Your task to perform on an android device: Open Reddit.com Image 0: 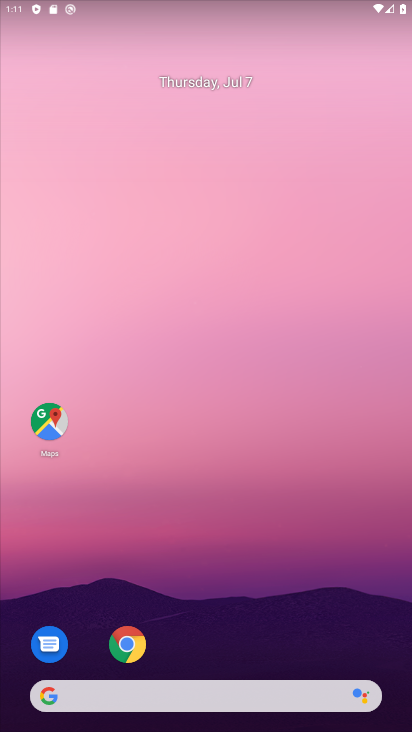
Step 0: click (115, 660)
Your task to perform on an android device: Open Reddit.com Image 1: 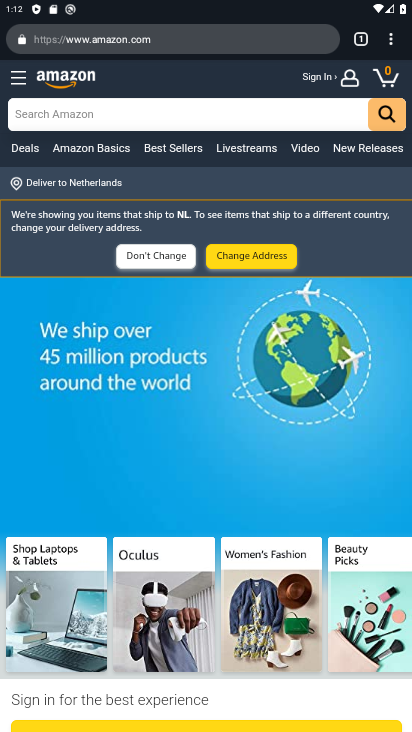
Step 1: click (163, 40)
Your task to perform on an android device: Open Reddit.com Image 2: 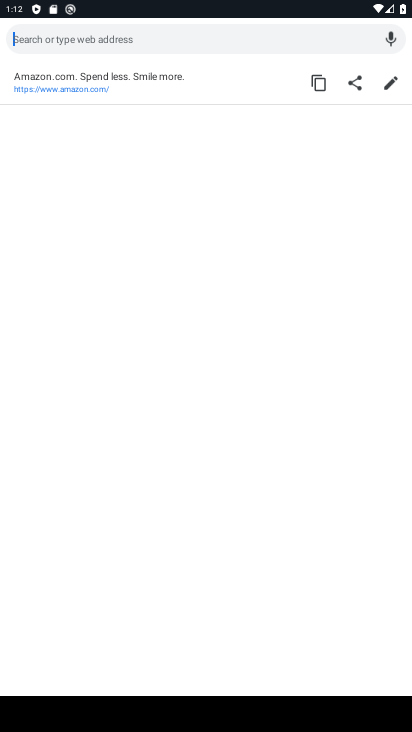
Step 2: type "reddit.com"
Your task to perform on an android device: Open Reddit.com Image 3: 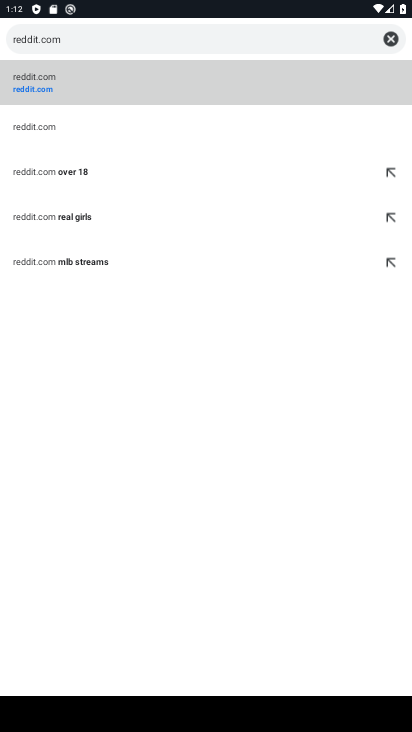
Step 3: click (164, 87)
Your task to perform on an android device: Open Reddit.com Image 4: 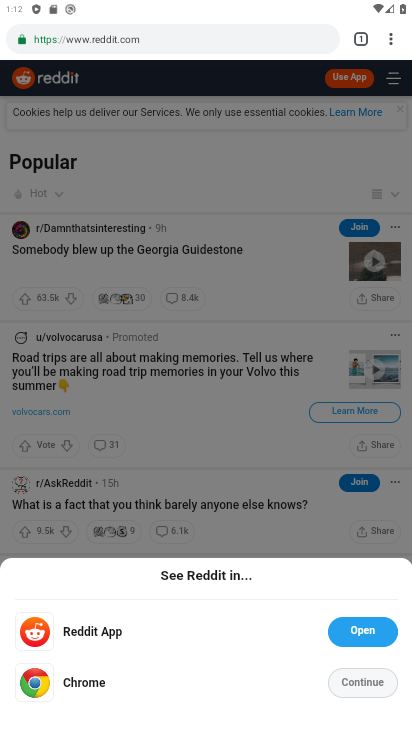
Step 4: task complete